Your task to perform on an android device: turn off location Image 0: 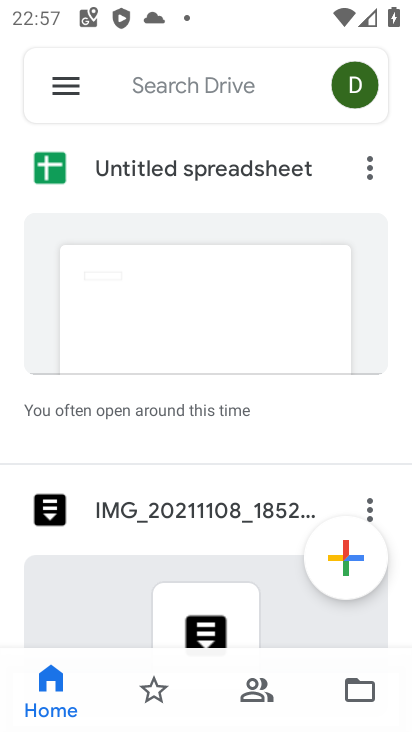
Step 0: press home button
Your task to perform on an android device: turn off location Image 1: 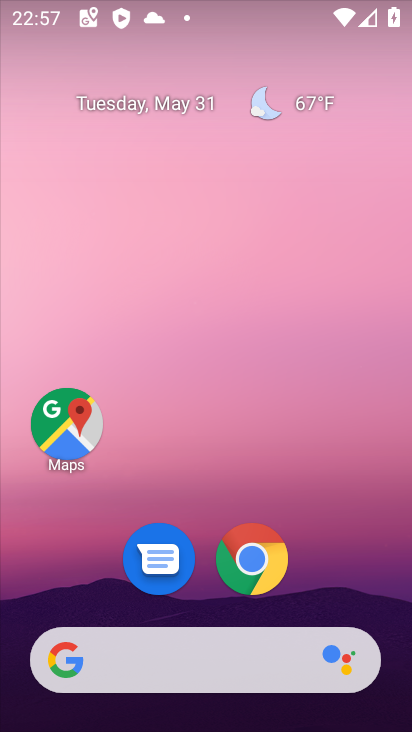
Step 1: drag from (325, 549) to (309, 131)
Your task to perform on an android device: turn off location Image 2: 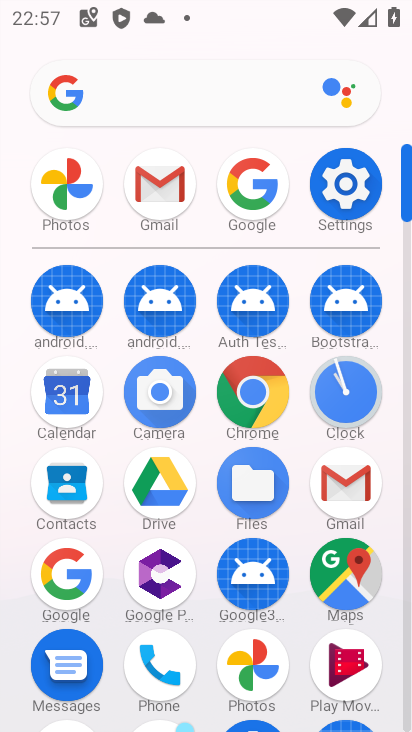
Step 2: click (347, 192)
Your task to perform on an android device: turn off location Image 3: 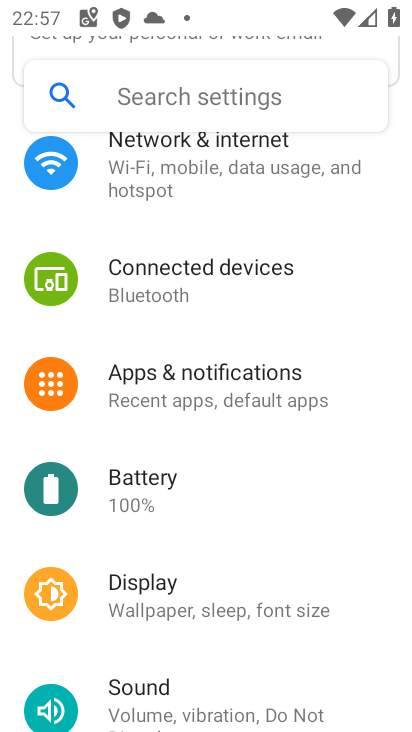
Step 3: drag from (218, 216) to (220, 415)
Your task to perform on an android device: turn off location Image 4: 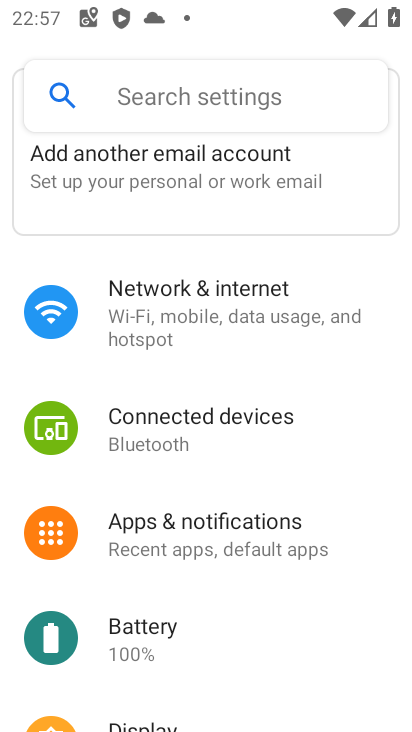
Step 4: drag from (240, 581) to (247, 135)
Your task to perform on an android device: turn off location Image 5: 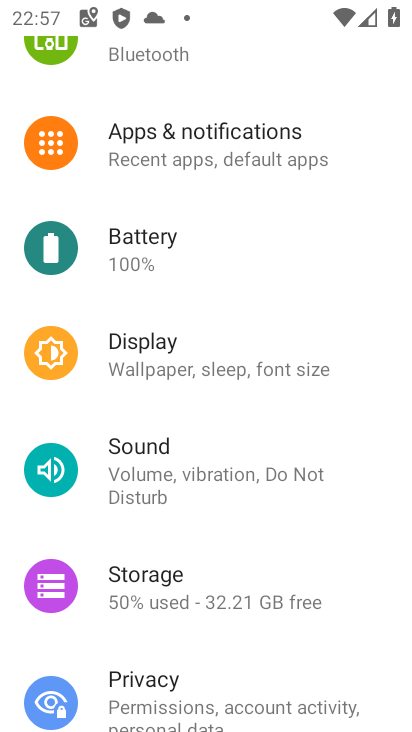
Step 5: drag from (184, 660) to (191, 235)
Your task to perform on an android device: turn off location Image 6: 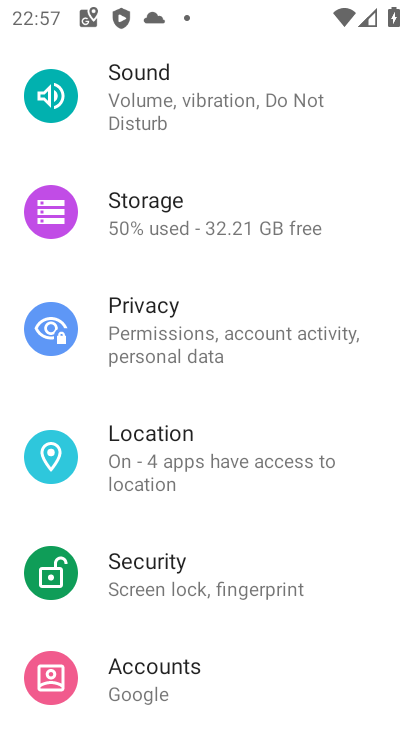
Step 6: click (155, 449)
Your task to perform on an android device: turn off location Image 7: 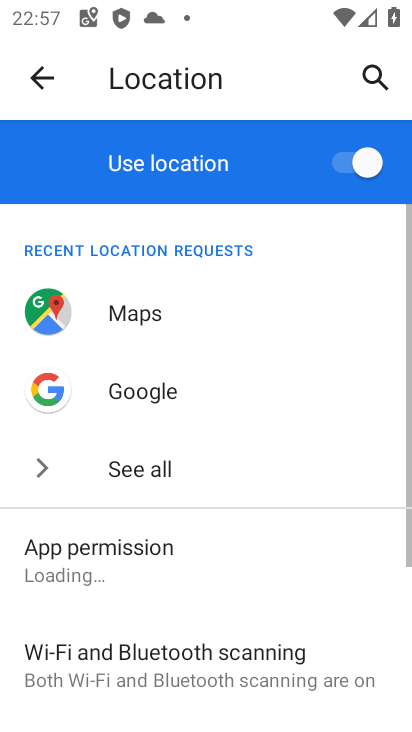
Step 7: click (361, 168)
Your task to perform on an android device: turn off location Image 8: 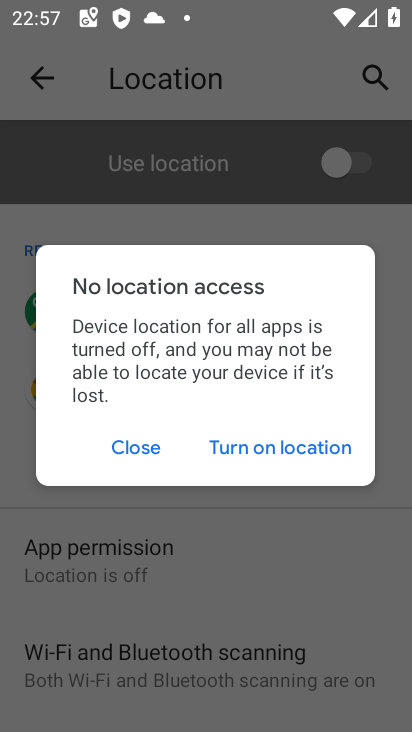
Step 8: click (138, 454)
Your task to perform on an android device: turn off location Image 9: 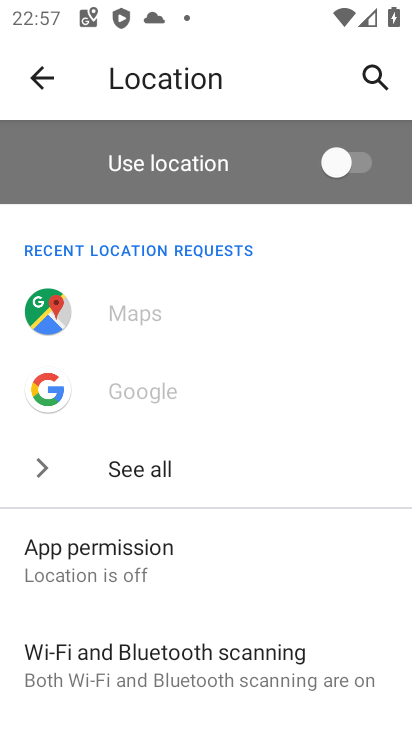
Step 9: task complete